Your task to perform on an android device: check battery use Image 0: 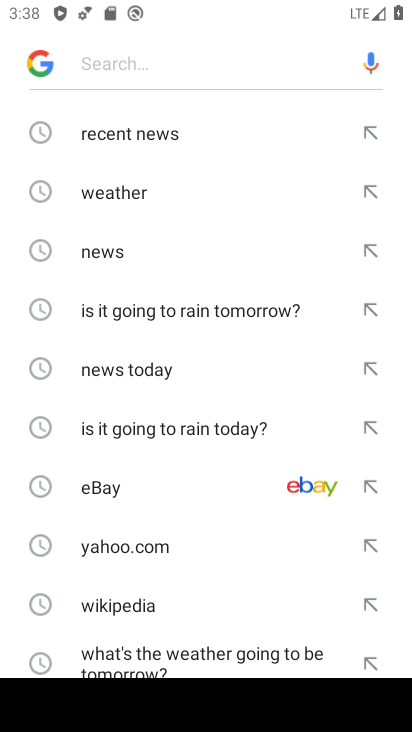
Step 0: press home button
Your task to perform on an android device: check battery use Image 1: 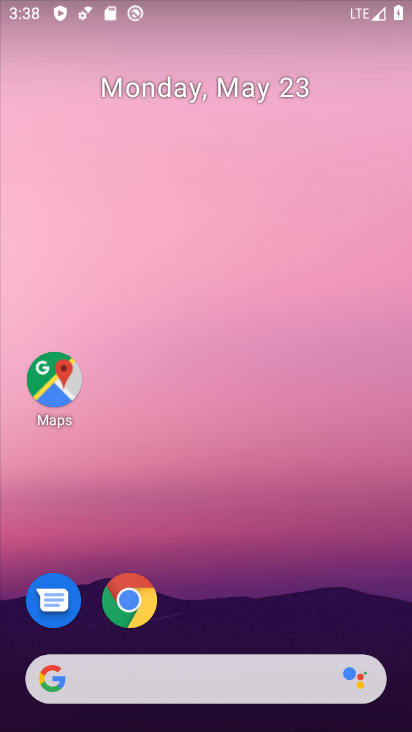
Step 1: drag from (246, 626) to (290, 0)
Your task to perform on an android device: check battery use Image 2: 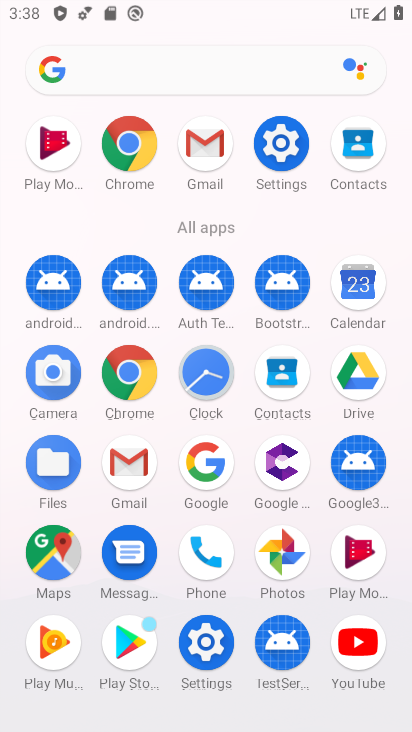
Step 2: click (276, 146)
Your task to perform on an android device: check battery use Image 3: 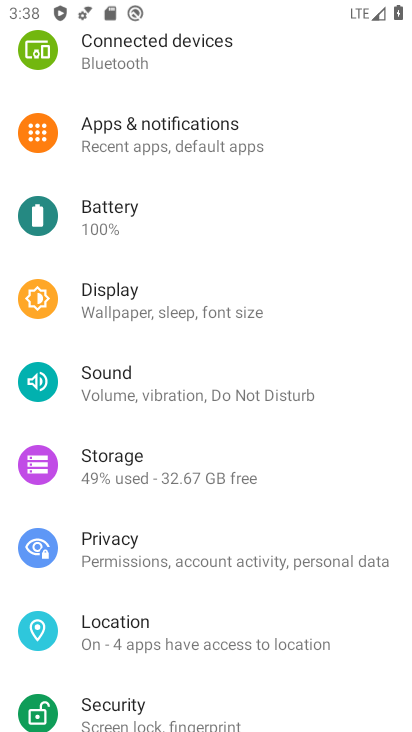
Step 3: click (103, 218)
Your task to perform on an android device: check battery use Image 4: 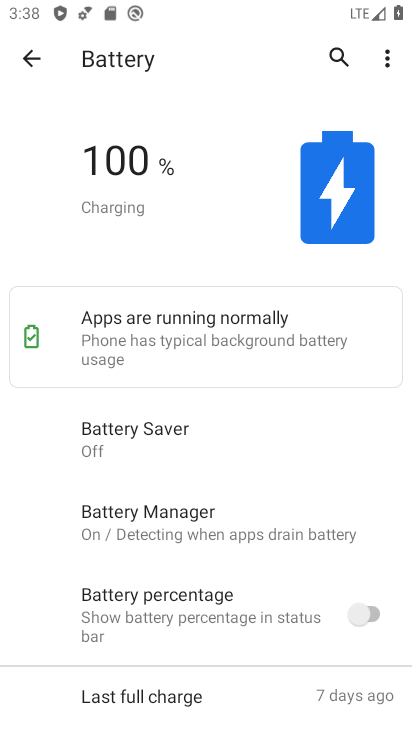
Step 4: click (388, 58)
Your task to perform on an android device: check battery use Image 5: 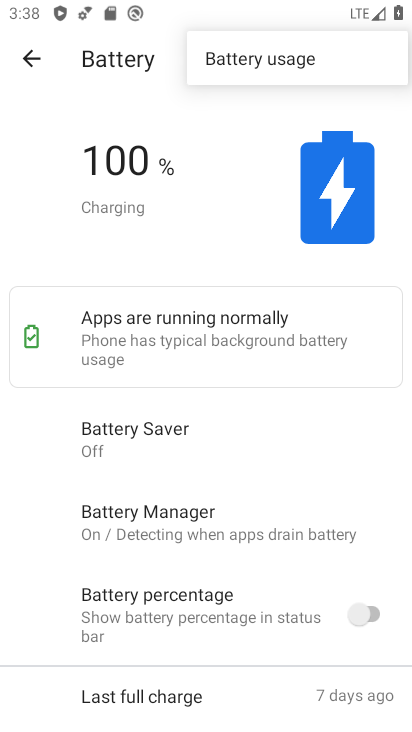
Step 5: click (273, 63)
Your task to perform on an android device: check battery use Image 6: 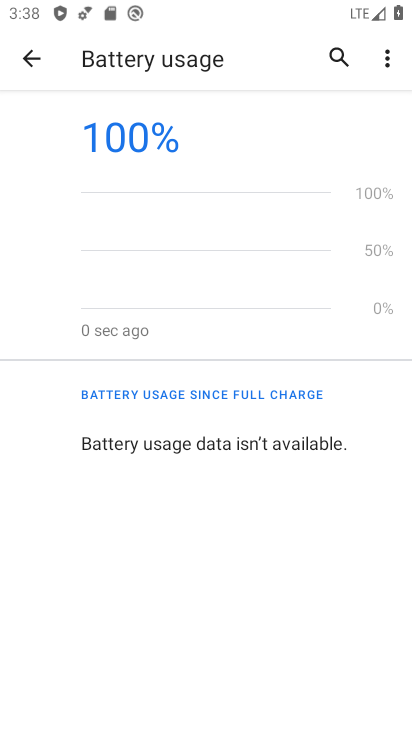
Step 6: task complete